Your task to perform on an android device: allow notifications from all sites in the chrome app Image 0: 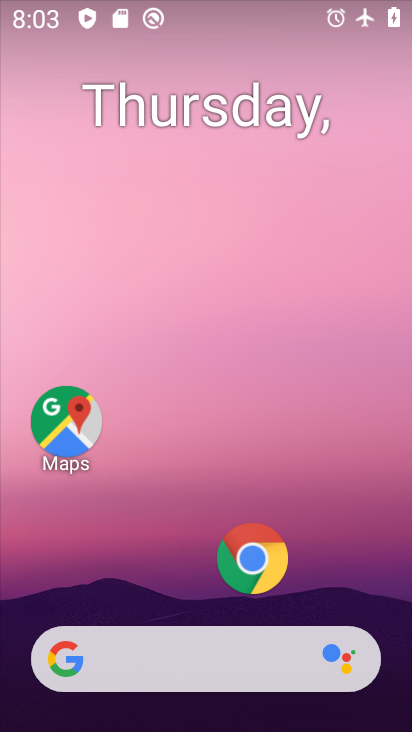
Step 0: click (249, 556)
Your task to perform on an android device: allow notifications from all sites in the chrome app Image 1: 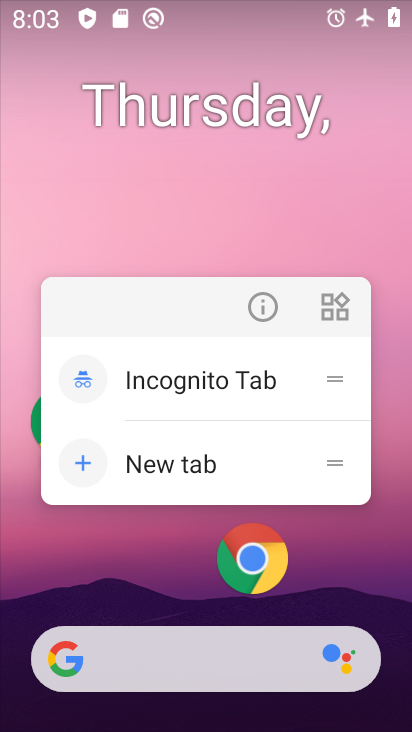
Step 1: click (255, 311)
Your task to perform on an android device: allow notifications from all sites in the chrome app Image 2: 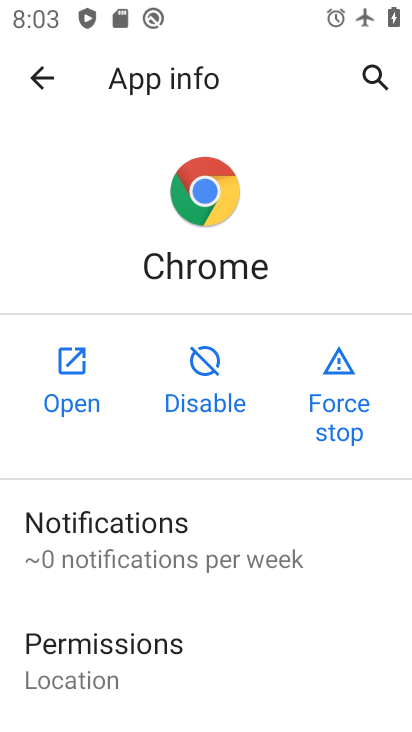
Step 2: click (69, 406)
Your task to perform on an android device: allow notifications from all sites in the chrome app Image 3: 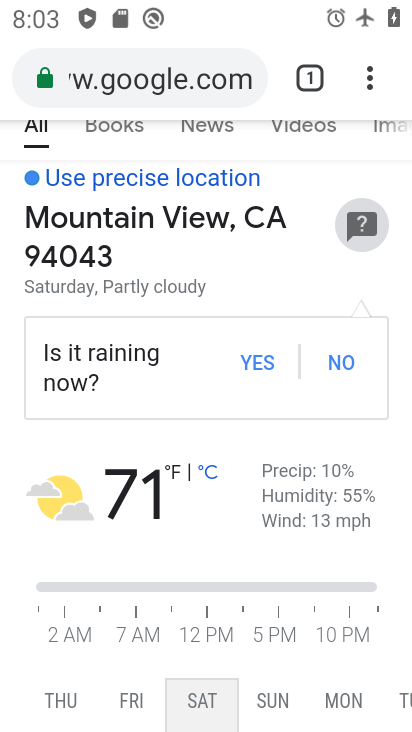
Step 3: click (368, 65)
Your task to perform on an android device: allow notifications from all sites in the chrome app Image 4: 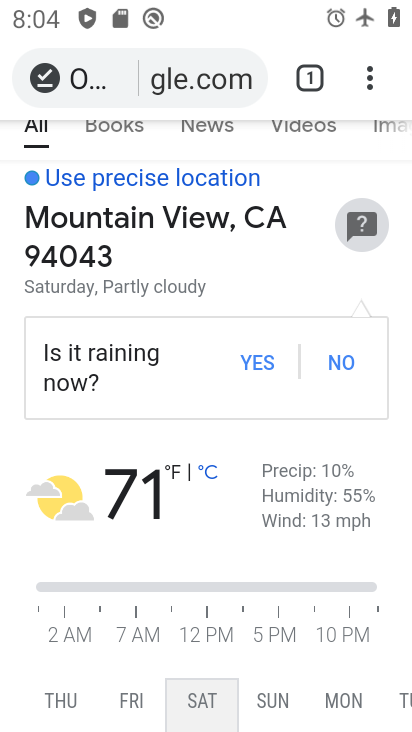
Step 4: click (370, 83)
Your task to perform on an android device: allow notifications from all sites in the chrome app Image 5: 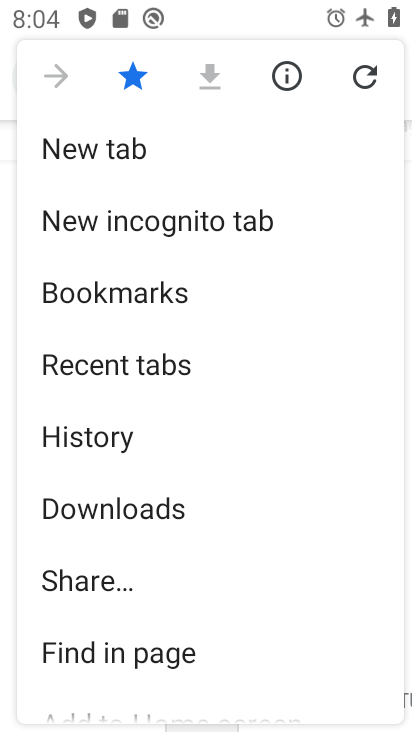
Step 5: drag from (159, 545) to (189, 191)
Your task to perform on an android device: allow notifications from all sites in the chrome app Image 6: 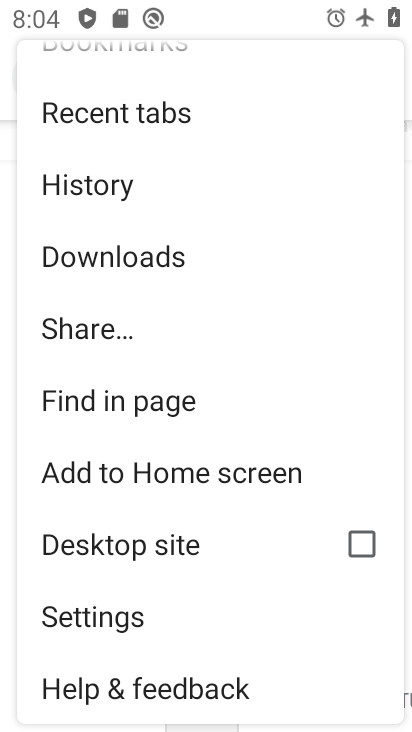
Step 6: click (104, 627)
Your task to perform on an android device: allow notifications from all sites in the chrome app Image 7: 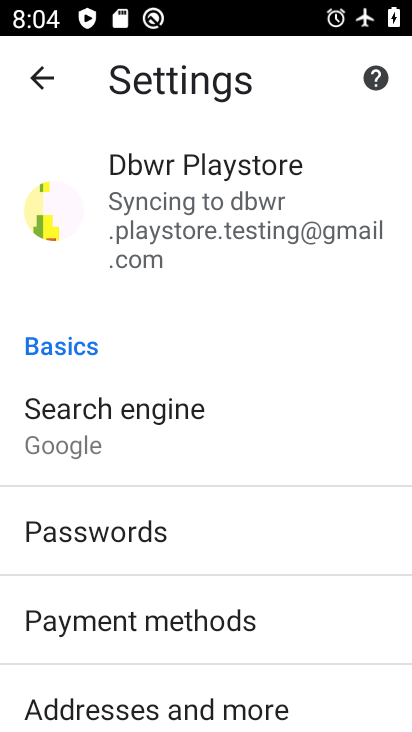
Step 7: drag from (145, 635) to (160, 248)
Your task to perform on an android device: allow notifications from all sites in the chrome app Image 8: 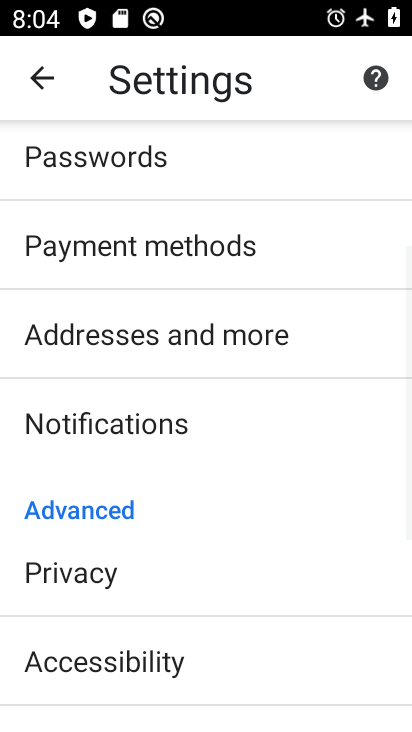
Step 8: drag from (169, 669) to (185, 439)
Your task to perform on an android device: allow notifications from all sites in the chrome app Image 9: 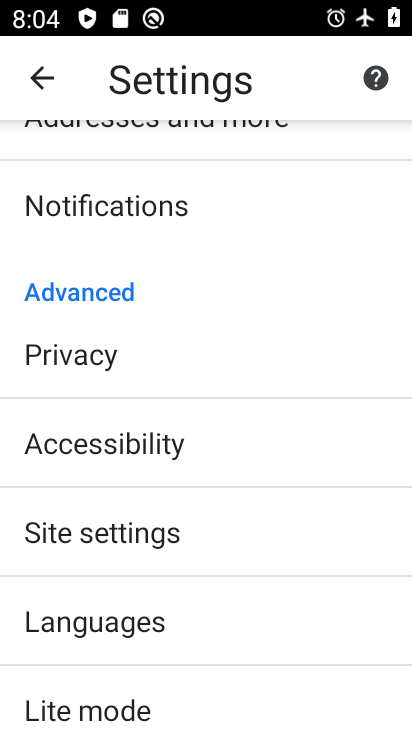
Step 9: click (136, 208)
Your task to perform on an android device: allow notifications from all sites in the chrome app Image 10: 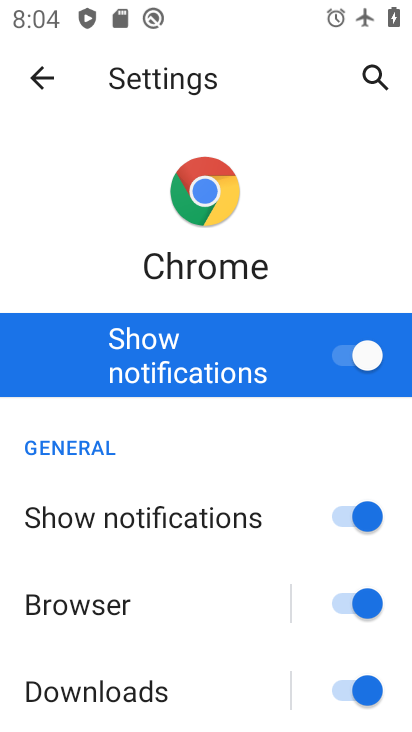
Step 10: task complete